Your task to perform on an android device: Go to battery settings Image 0: 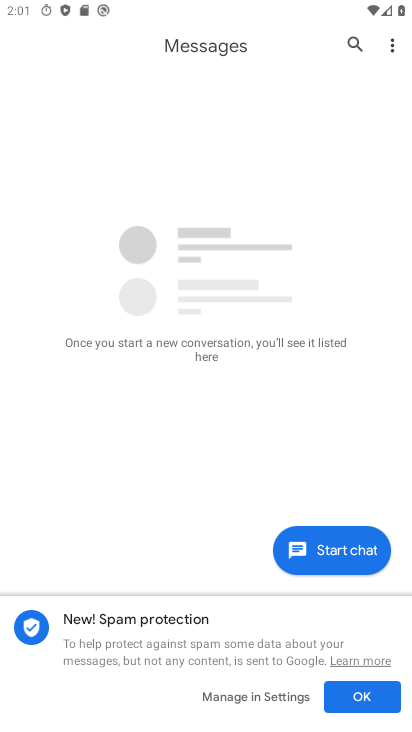
Step 0: press home button
Your task to perform on an android device: Go to battery settings Image 1: 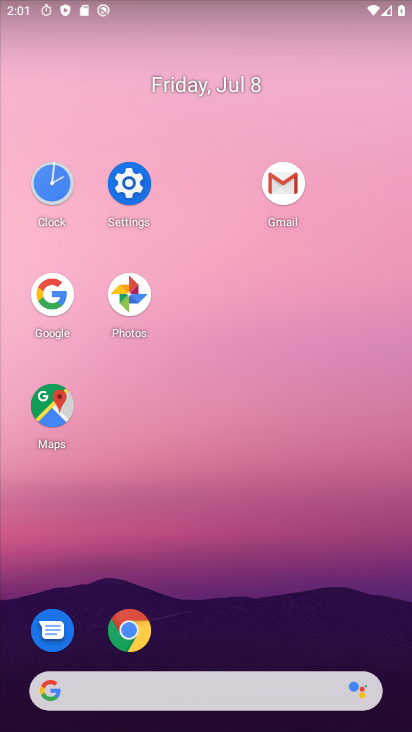
Step 1: click (140, 173)
Your task to perform on an android device: Go to battery settings Image 2: 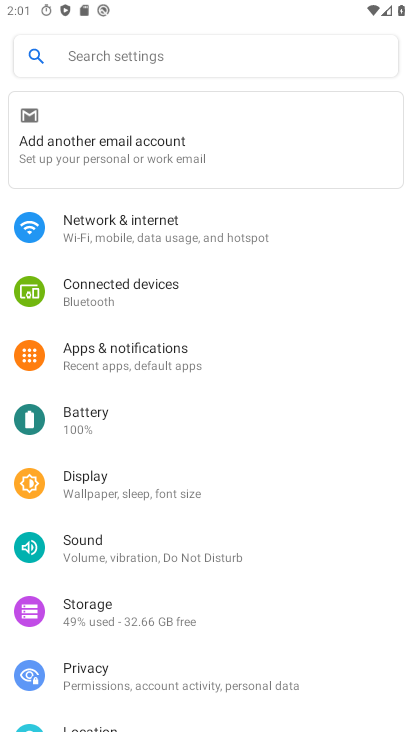
Step 2: click (136, 414)
Your task to perform on an android device: Go to battery settings Image 3: 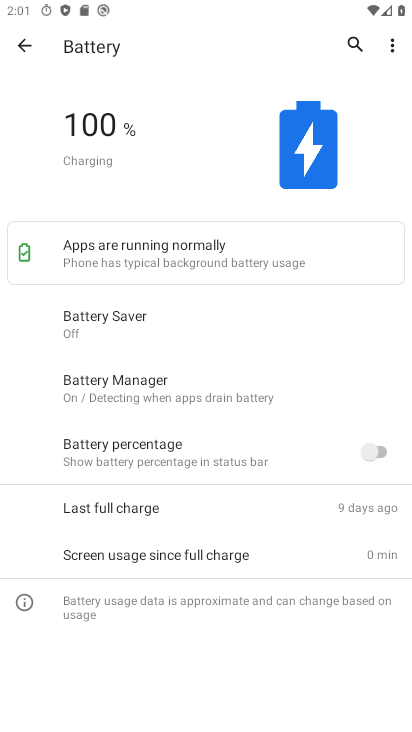
Step 3: click (394, 42)
Your task to perform on an android device: Go to battery settings Image 4: 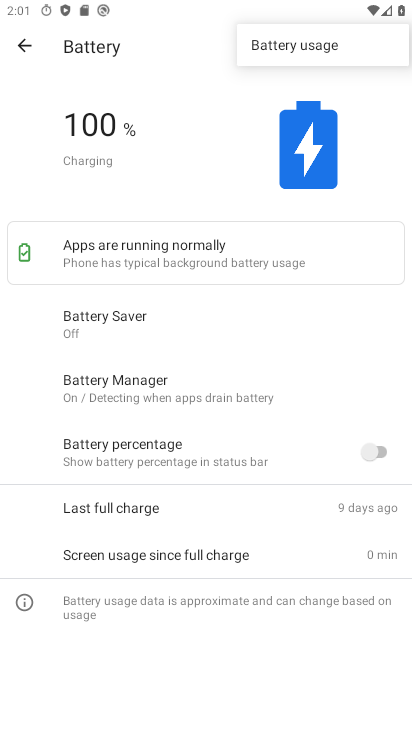
Step 4: task complete